Your task to perform on an android device: Open Maps and search for coffee Image 0: 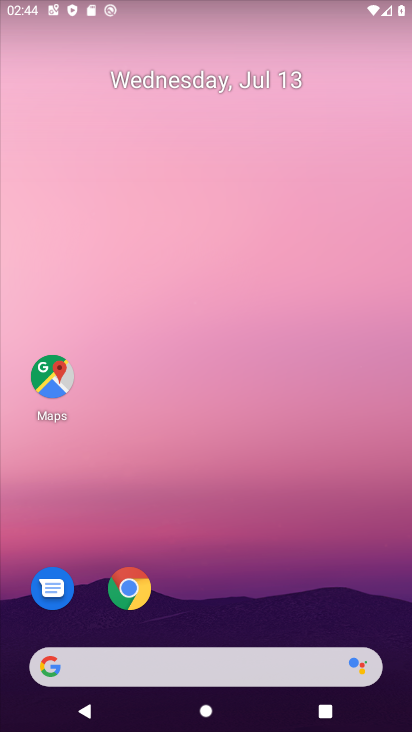
Step 0: click (54, 379)
Your task to perform on an android device: Open Maps and search for coffee Image 1: 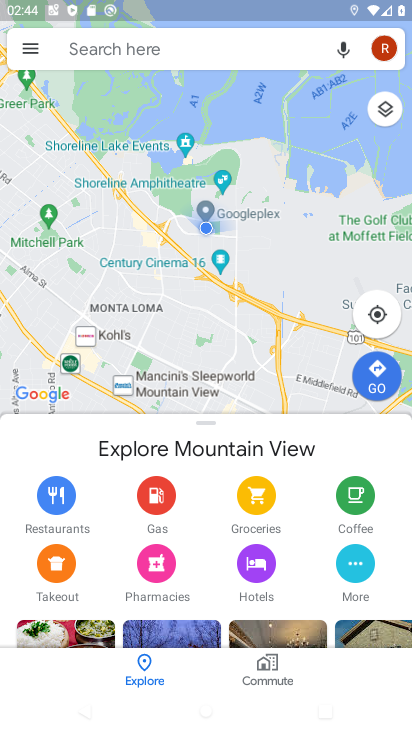
Step 1: task complete